Your task to perform on an android device: Search for sushi restaurants on Maps Image 0: 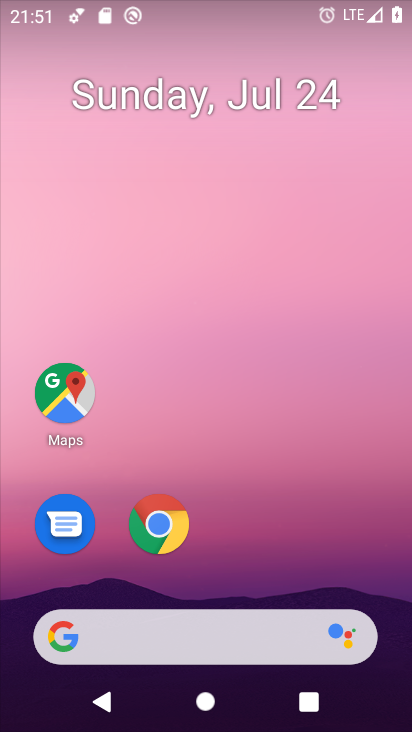
Step 0: click (77, 375)
Your task to perform on an android device: Search for sushi restaurants on Maps Image 1: 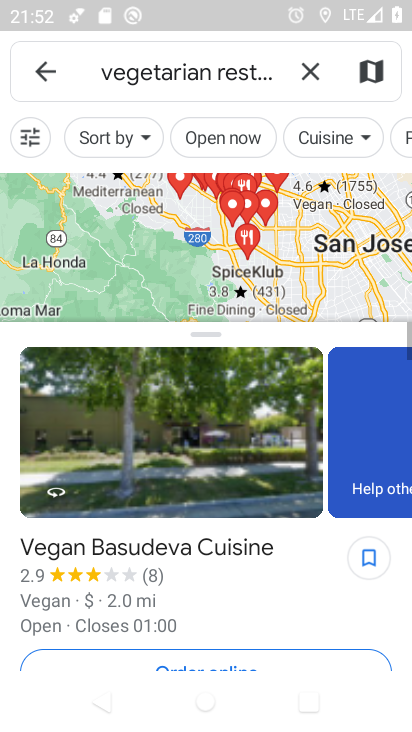
Step 1: click (308, 69)
Your task to perform on an android device: Search for sushi restaurants on Maps Image 2: 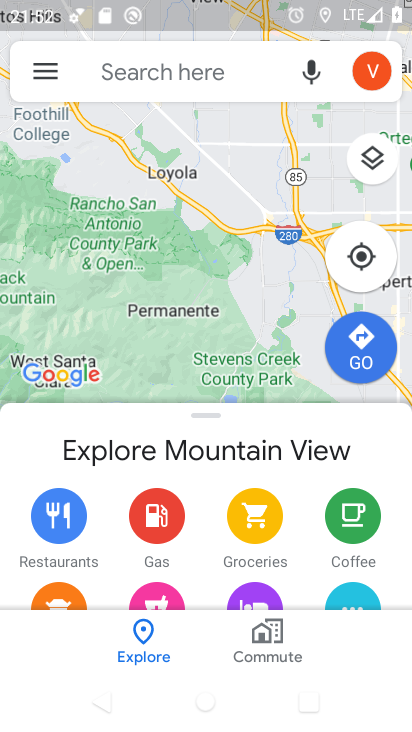
Step 2: click (238, 72)
Your task to perform on an android device: Search for sushi restaurants on Maps Image 3: 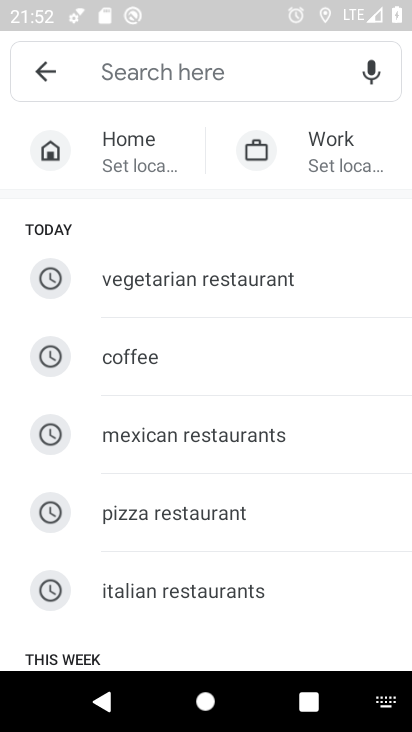
Step 3: drag from (182, 559) to (232, 229)
Your task to perform on an android device: Search for sushi restaurants on Maps Image 4: 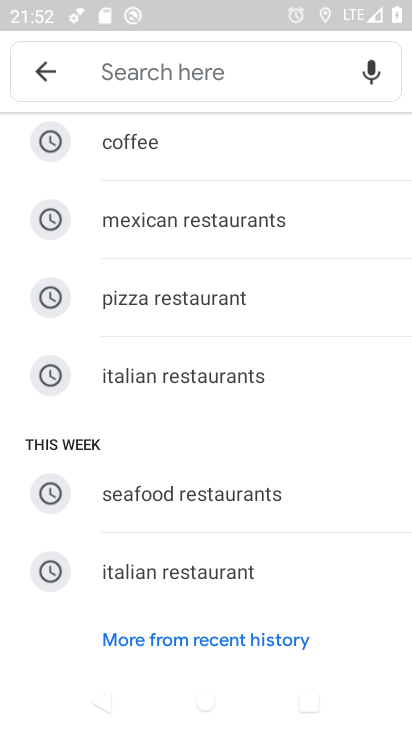
Step 4: drag from (225, 169) to (233, 521)
Your task to perform on an android device: Search for sushi restaurants on Maps Image 5: 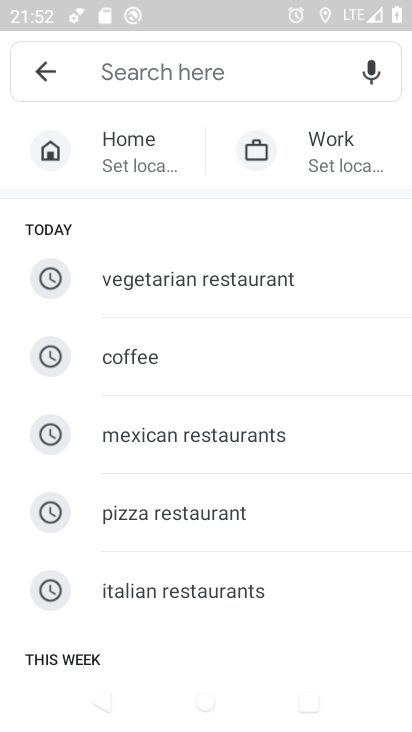
Step 5: click (253, 60)
Your task to perform on an android device: Search for sushi restaurants on Maps Image 6: 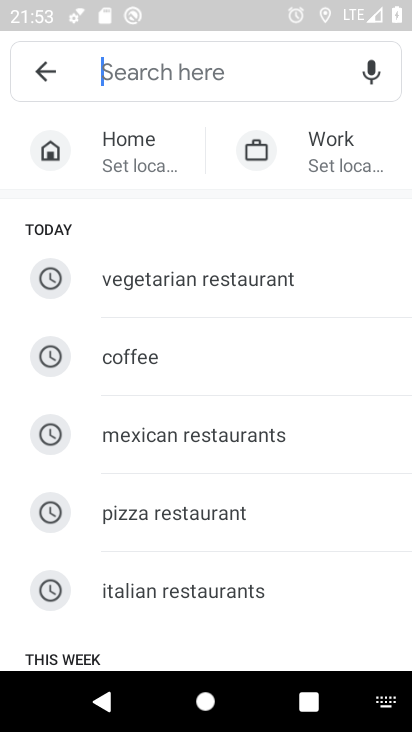
Step 6: type "sushi restaurants"
Your task to perform on an android device: Search for sushi restaurants on Maps Image 7: 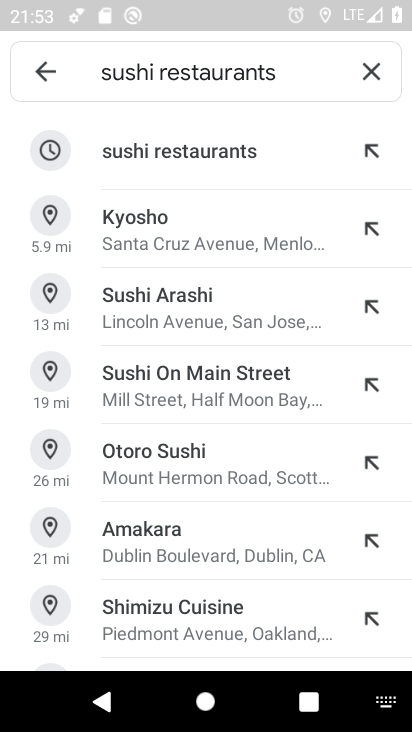
Step 7: click (232, 154)
Your task to perform on an android device: Search for sushi restaurants on Maps Image 8: 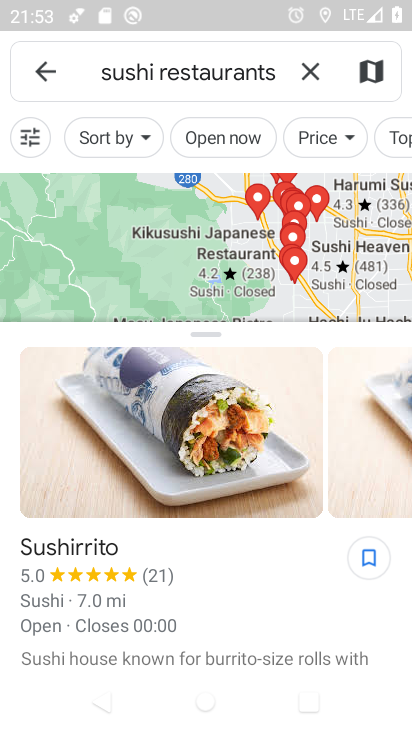
Step 8: task complete